Your task to perform on an android device: refresh tabs in the chrome app Image 0: 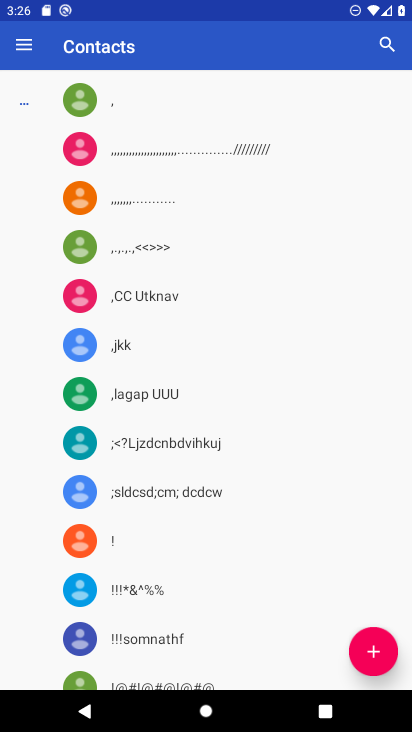
Step 0: press home button
Your task to perform on an android device: refresh tabs in the chrome app Image 1: 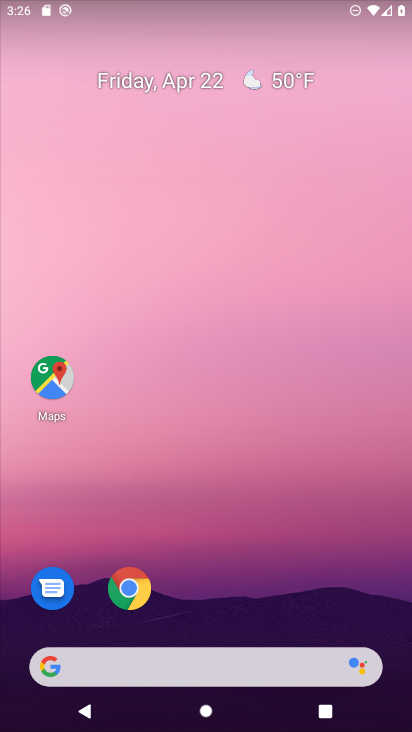
Step 1: click (117, 603)
Your task to perform on an android device: refresh tabs in the chrome app Image 2: 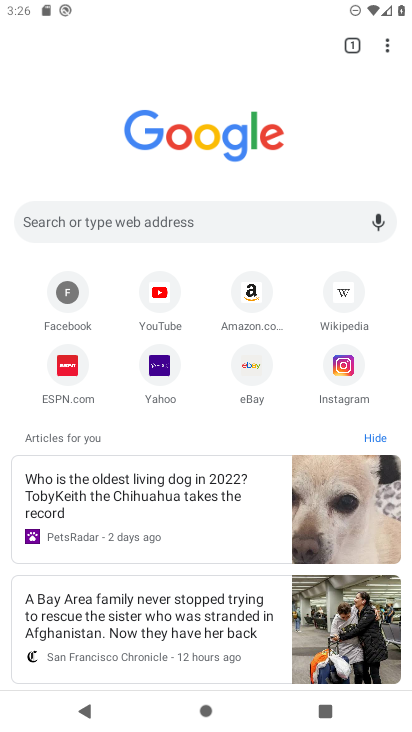
Step 2: click (388, 44)
Your task to perform on an android device: refresh tabs in the chrome app Image 3: 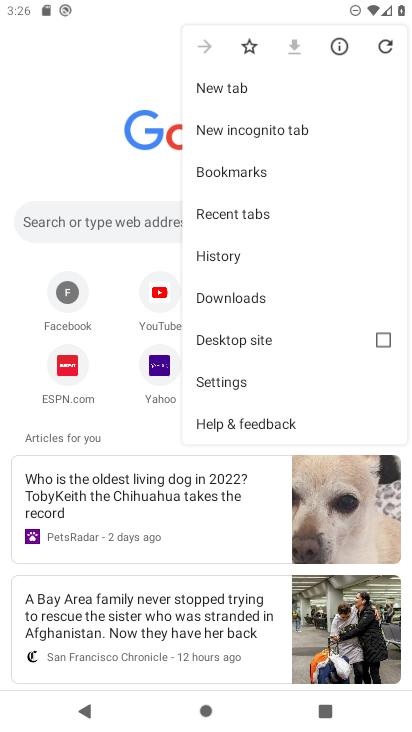
Step 3: click (382, 48)
Your task to perform on an android device: refresh tabs in the chrome app Image 4: 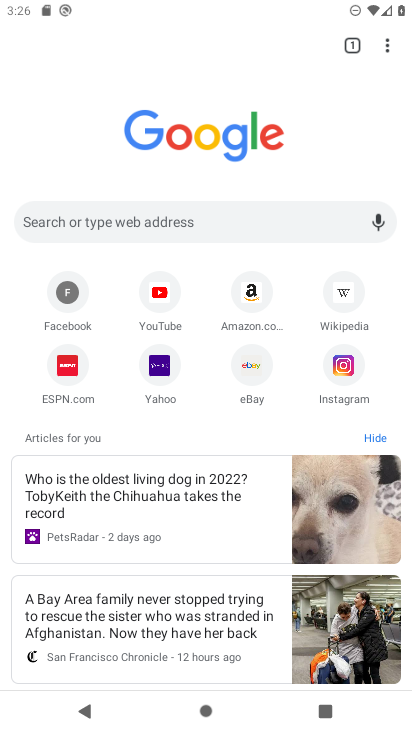
Step 4: task complete